Your task to perform on an android device: Open Google Chrome and open the bookmarks view Image 0: 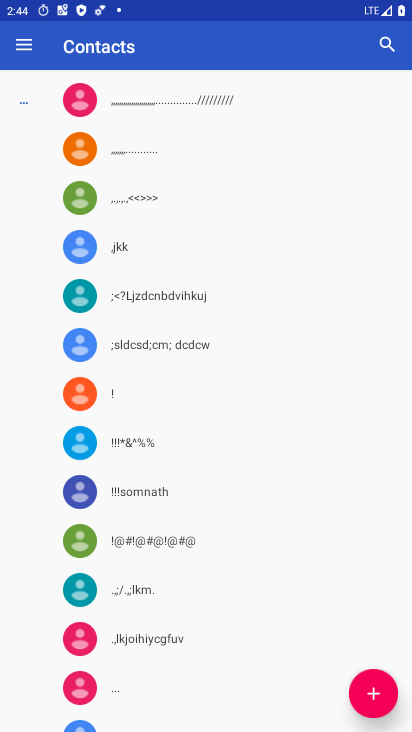
Step 0: press home button
Your task to perform on an android device: Open Google Chrome and open the bookmarks view Image 1: 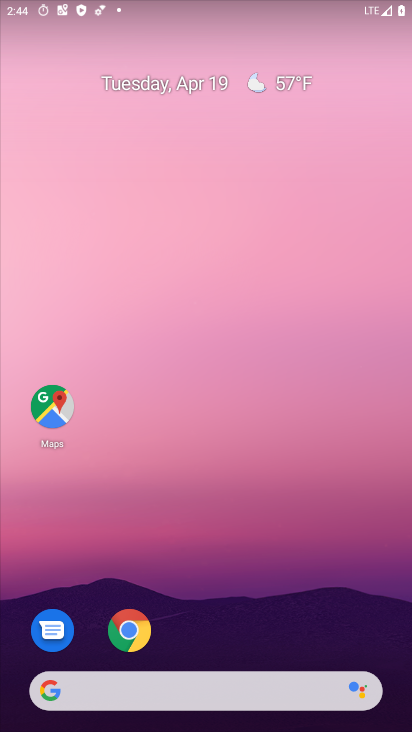
Step 1: click (128, 629)
Your task to perform on an android device: Open Google Chrome and open the bookmarks view Image 2: 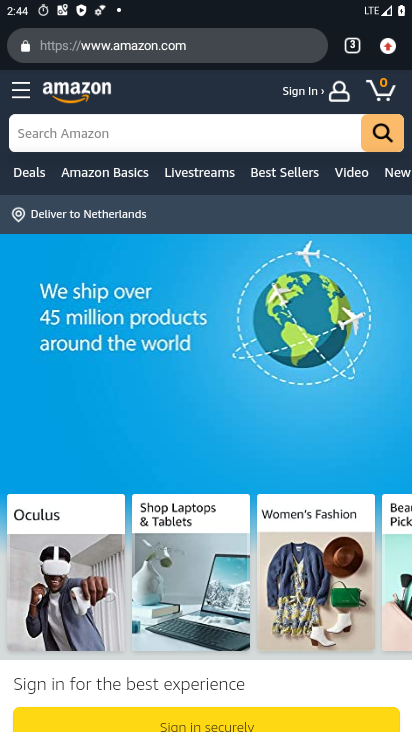
Step 2: click (384, 44)
Your task to perform on an android device: Open Google Chrome and open the bookmarks view Image 3: 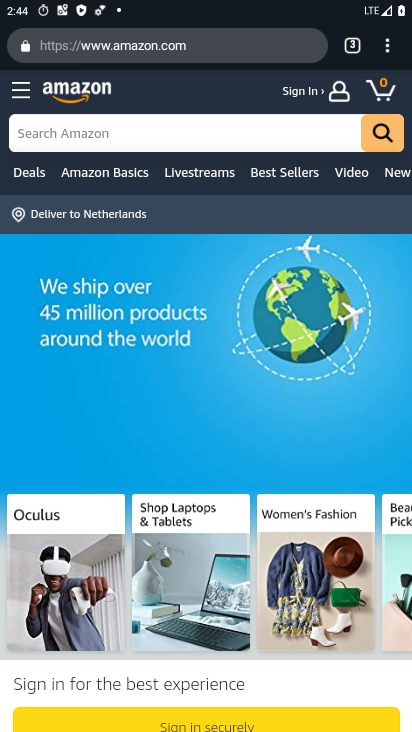
Step 3: click (382, 49)
Your task to perform on an android device: Open Google Chrome and open the bookmarks view Image 4: 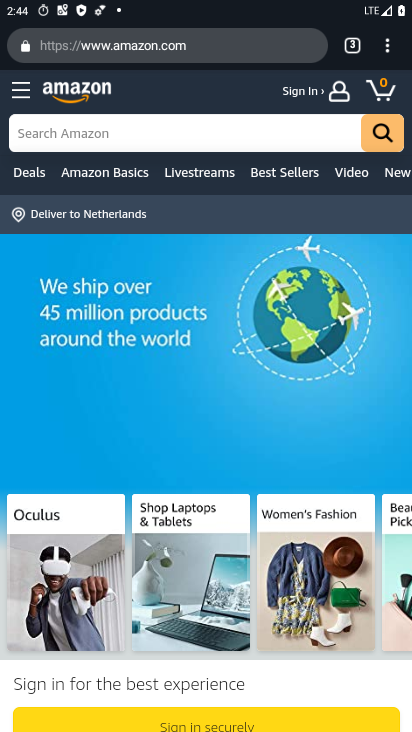
Step 4: click (392, 52)
Your task to perform on an android device: Open Google Chrome and open the bookmarks view Image 5: 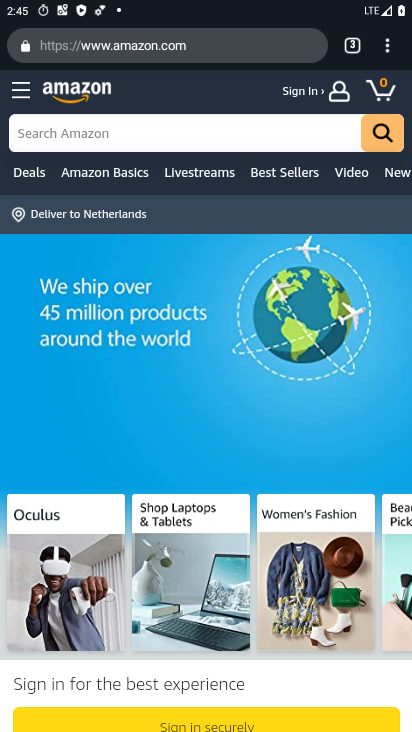
Step 5: click (389, 53)
Your task to perform on an android device: Open Google Chrome and open the bookmarks view Image 6: 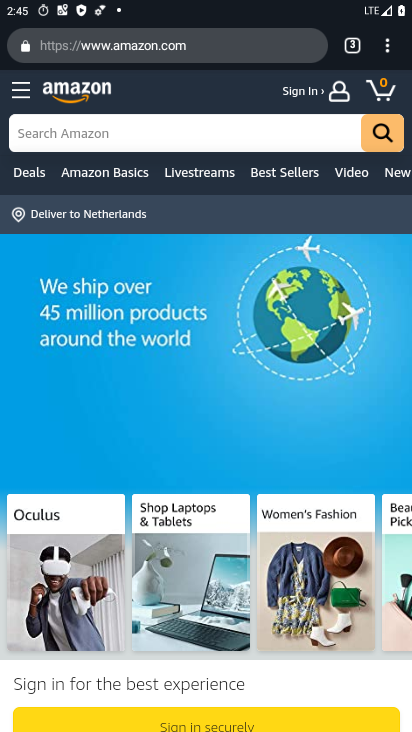
Step 6: click (385, 56)
Your task to perform on an android device: Open Google Chrome and open the bookmarks view Image 7: 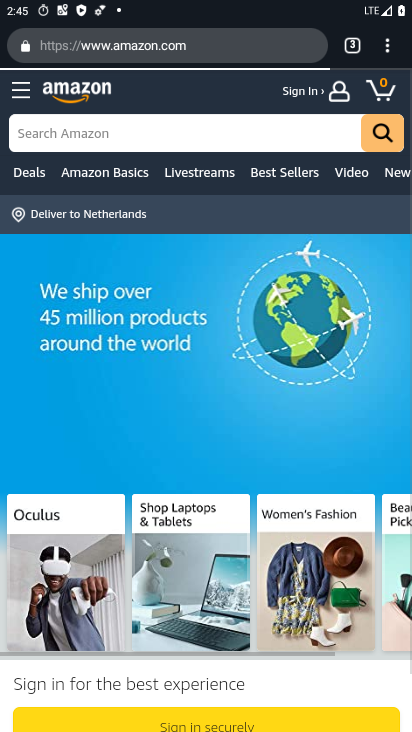
Step 7: click (384, 57)
Your task to perform on an android device: Open Google Chrome and open the bookmarks view Image 8: 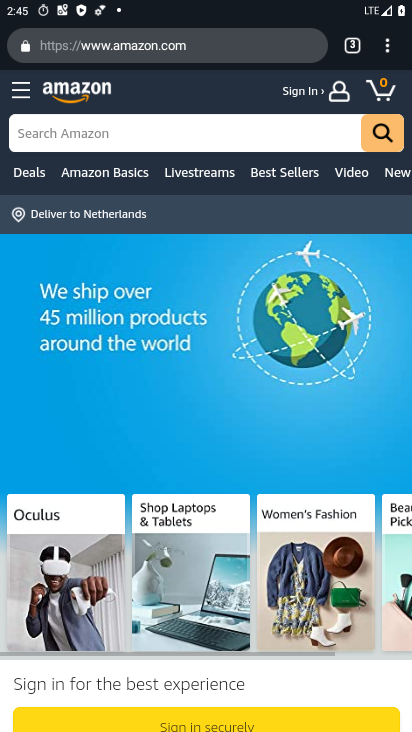
Step 8: click (384, 57)
Your task to perform on an android device: Open Google Chrome and open the bookmarks view Image 9: 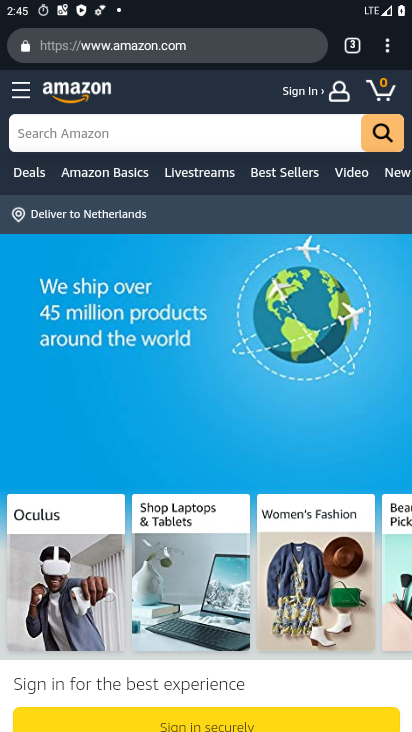
Step 9: click (385, 48)
Your task to perform on an android device: Open Google Chrome and open the bookmarks view Image 10: 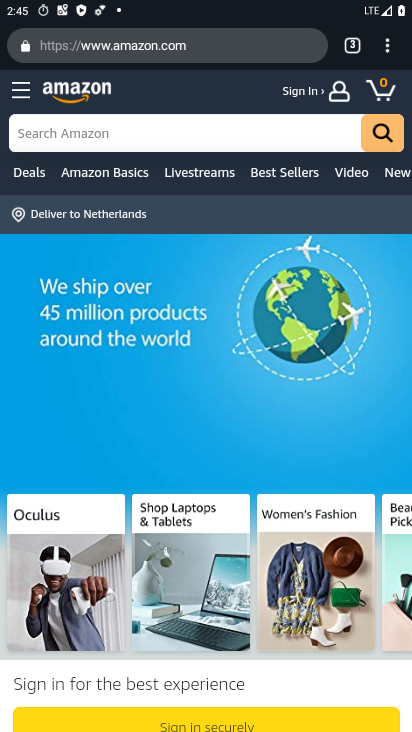
Step 10: click (385, 48)
Your task to perform on an android device: Open Google Chrome and open the bookmarks view Image 11: 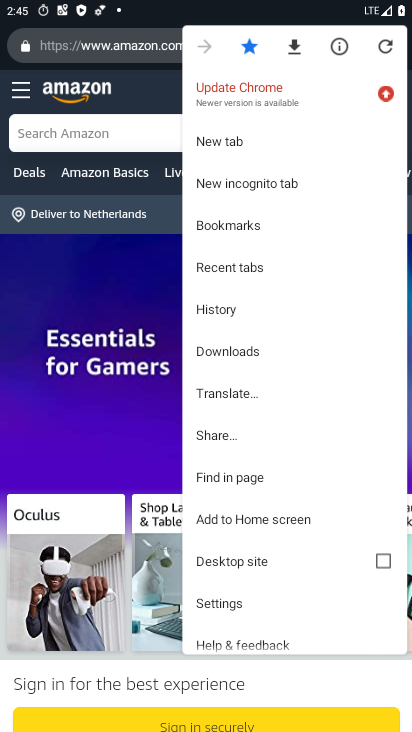
Step 11: click (241, 228)
Your task to perform on an android device: Open Google Chrome and open the bookmarks view Image 12: 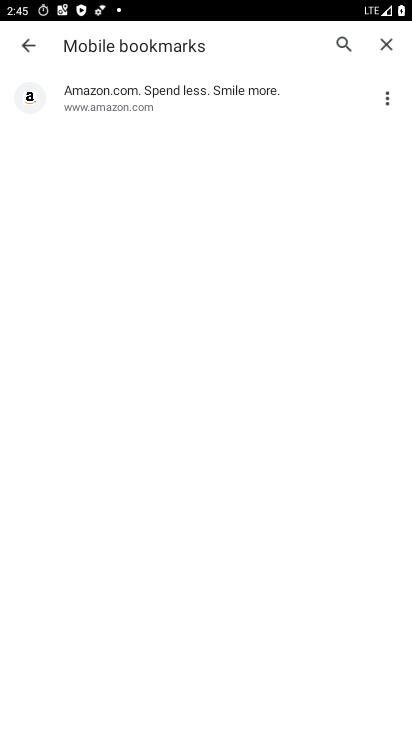
Step 12: click (382, 100)
Your task to perform on an android device: Open Google Chrome and open the bookmarks view Image 13: 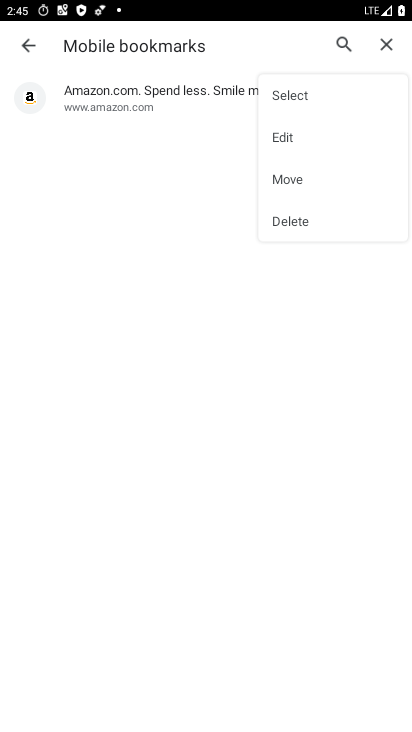
Step 13: click (118, 116)
Your task to perform on an android device: Open Google Chrome and open the bookmarks view Image 14: 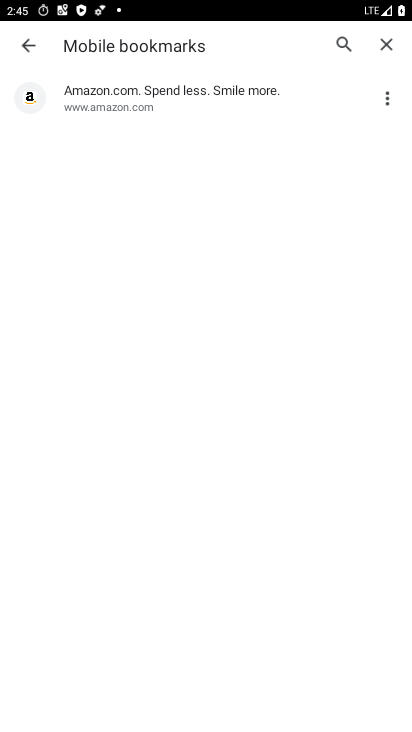
Step 14: click (120, 118)
Your task to perform on an android device: Open Google Chrome and open the bookmarks view Image 15: 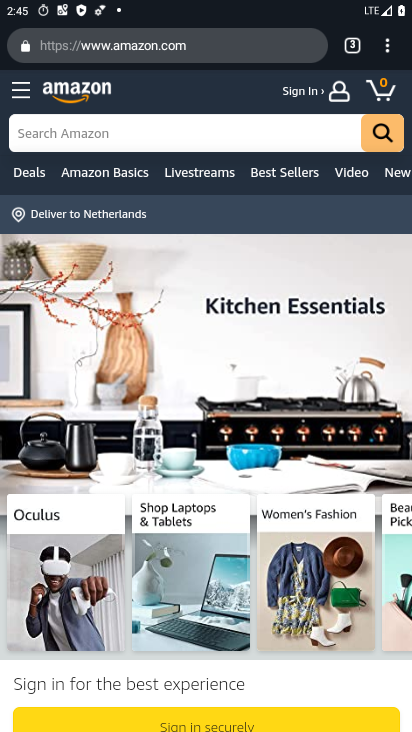
Step 15: task complete